Your task to perform on an android device: Open calendar and show me the second week of next month Image 0: 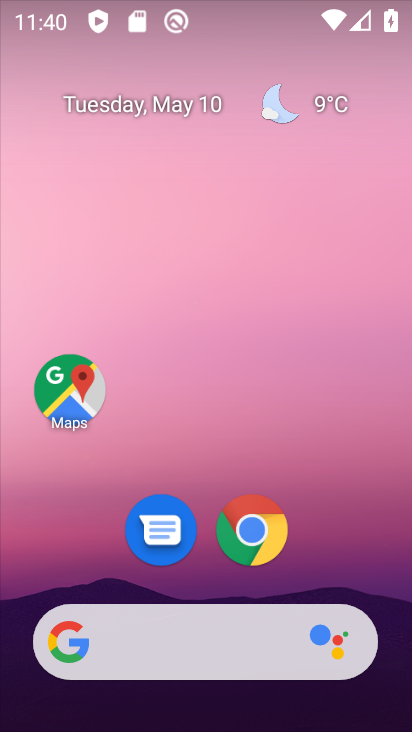
Step 0: drag from (330, 473) to (385, 115)
Your task to perform on an android device: Open calendar and show me the second week of next month Image 1: 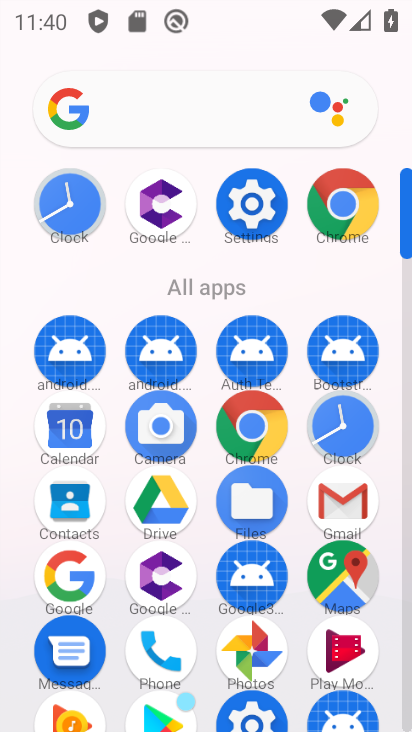
Step 1: click (74, 425)
Your task to perform on an android device: Open calendar and show me the second week of next month Image 2: 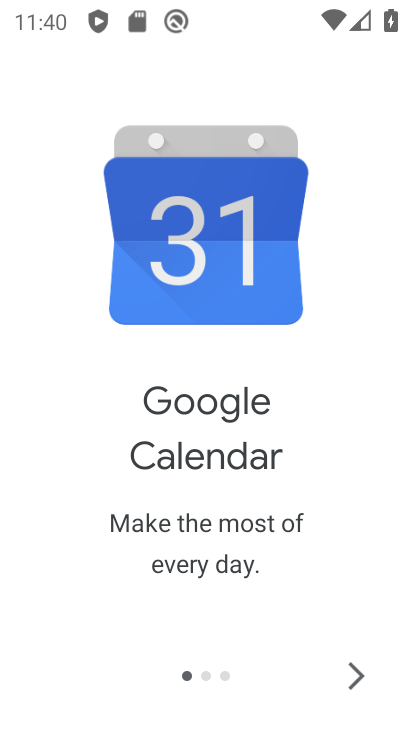
Step 2: click (357, 685)
Your task to perform on an android device: Open calendar and show me the second week of next month Image 3: 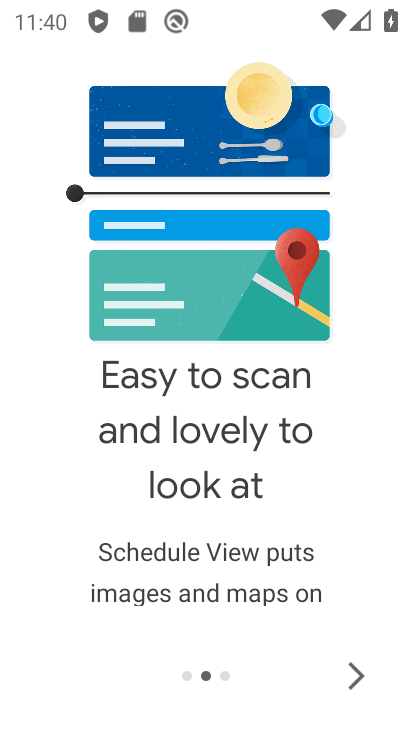
Step 3: click (358, 664)
Your task to perform on an android device: Open calendar and show me the second week of next month Image 4: 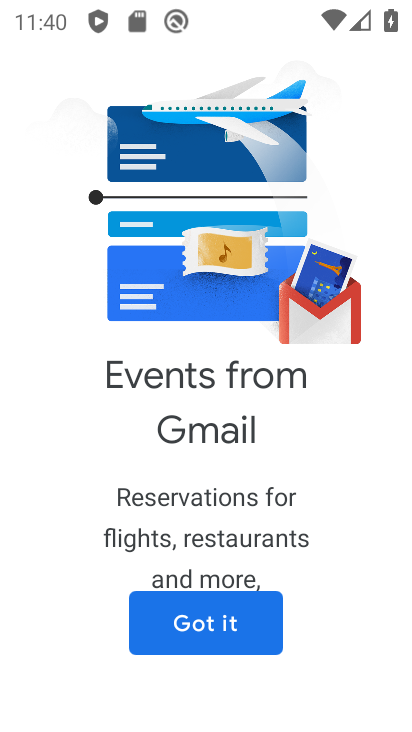
Step 4: click (221, 634)
Your task to perform on an android device: Open calendar and show me the second week of next month Image 5: 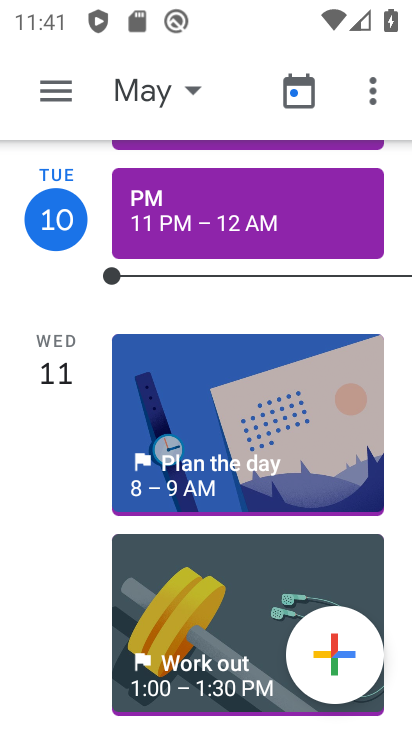
Step 5: press home button
Your task to perform on an android device: Open calendar and show me the second week of next month Image 6: 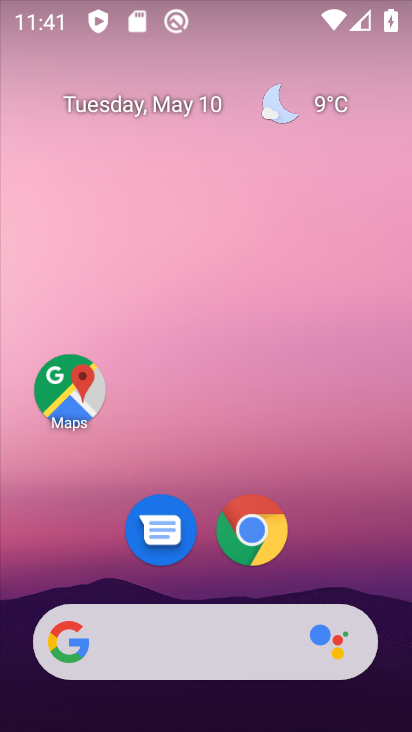
Step 6: drag from (362, 523) to (318, 196)
Your task to perform on an android device: Open calendar and show me the second week of next month Image 7: 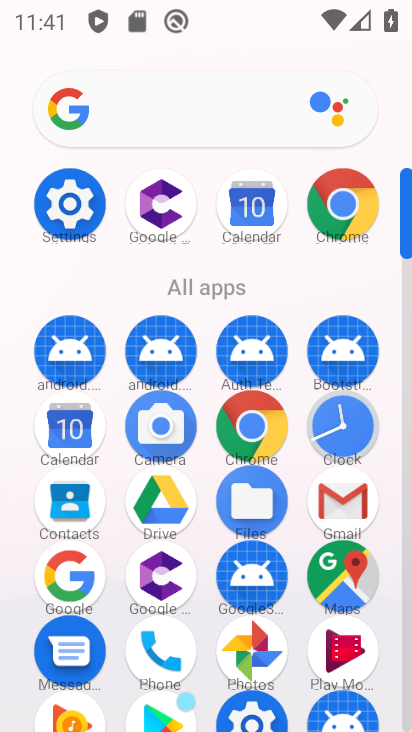
Step 7: click (94, 414)
Your task to perform on an android device: Open calendar and show me the second week of next month Image 8: 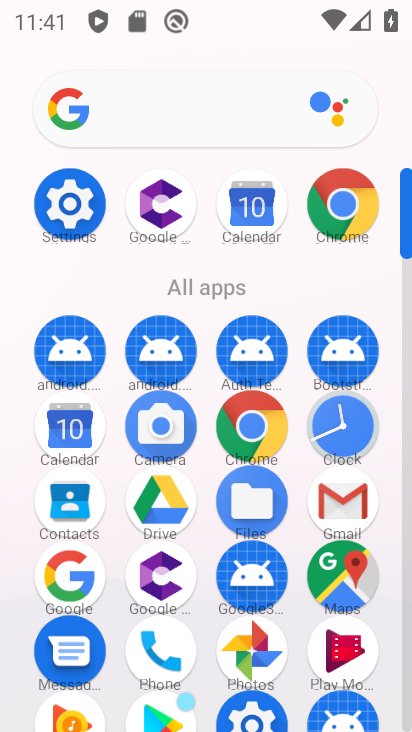
Step 8: click (94, 414)
Your task to perform on an android device: Open calendar and show me the second week of next month Image 9: 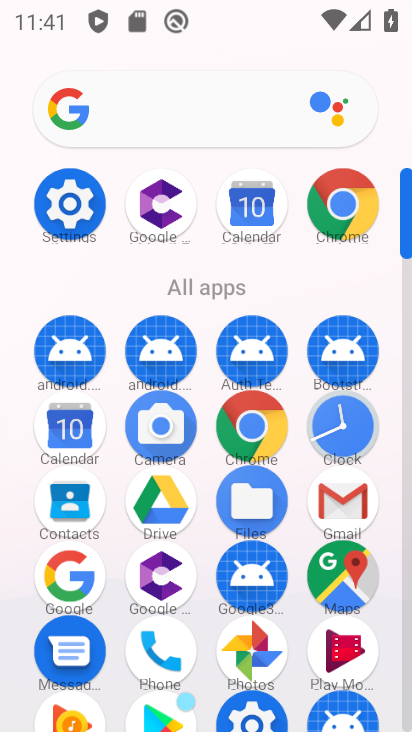
Step 9: click (94, 414)
Your task to perform on an android device: Open calendar and show me the second week of next month Image 10: 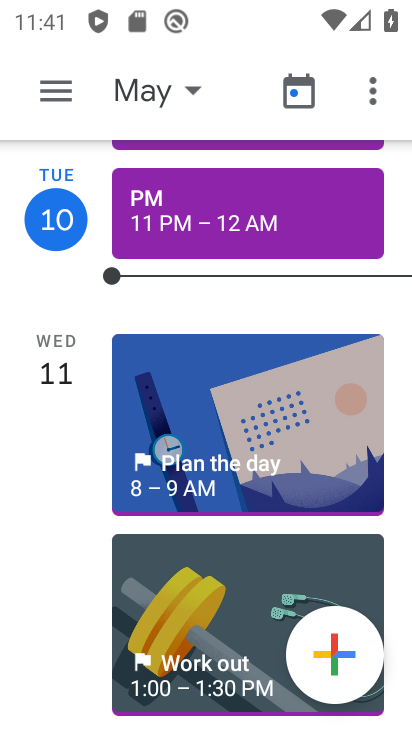
Step 10: click (184, 90)
Your task to perform on an android device: Open calendar and show me the second week of next month Image 11: 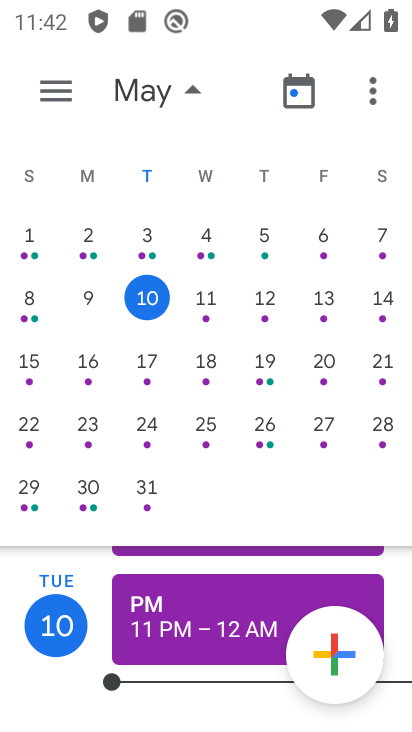
Step 11: drag from (392, 313) to (217, 16)
Your task to perform on an android device: Open calendar and show me the second week of next month Image 12: 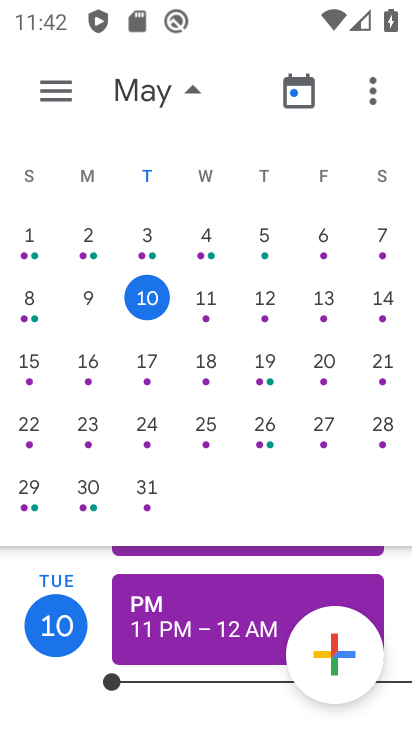
Step 12: drag from (366, 318) to (15, 346)
Your task to perform on an android device: Open calendar and show me the second week of next month Image 13: 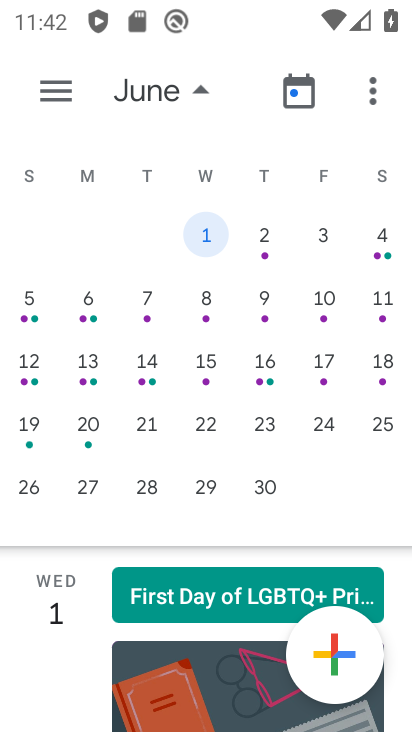
Step 13: click (218, 303)
Your task to perform on an android device: Open calendar and show me the second week of next month Image 14: 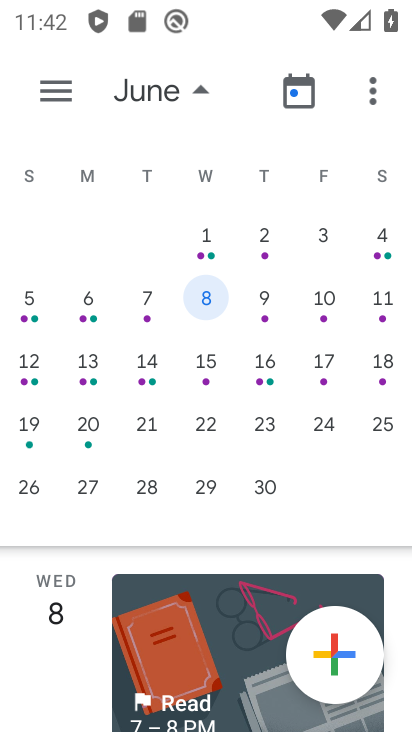
Step 14: task complete